Your task to perform on an android device: Open the phone app and click the voicemail tab. Image 0: 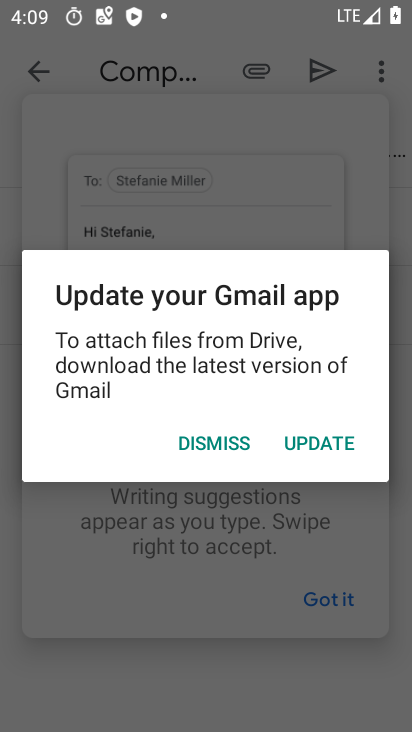
Step 0: press home button
Your task to perform on an android device: Open the phone app and click the voicemail tab. Image 1: 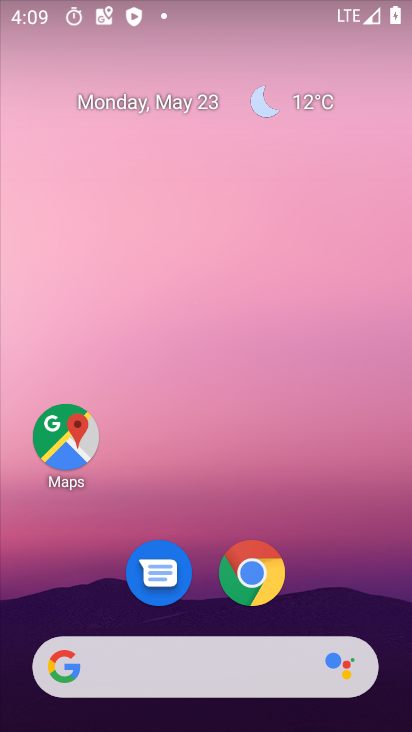
Step 1: drag from (39, 489) to (165, 236)
Your task to perform on an android device: Open the phone app and click the voicemail tab. Image 2: 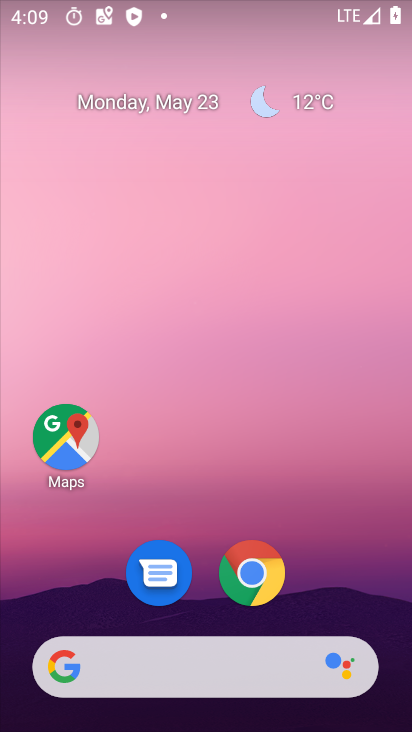
Step 2: drag from (98, 396) to (235, 167)
Your task to perform on an android device: Open the phone app and click the voicemail tab. Image 3: 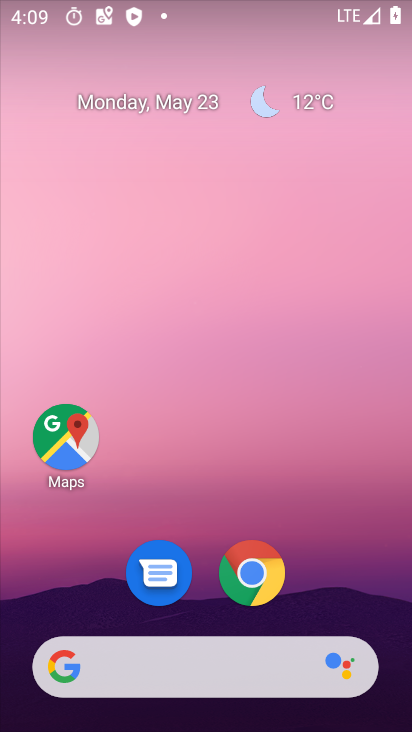
Step 3: drag from (71, 437) to (278, 107)
Your task to perform on an android device: Open the phone app and click the voicemail tab. Image 4: 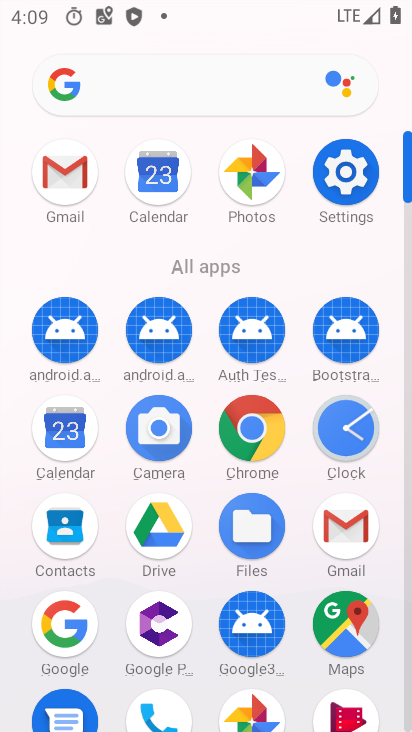
Step 4: click (140, 700)
Your task to perform on an android device: Open the phone app and click the voicemail tab. Image 5: 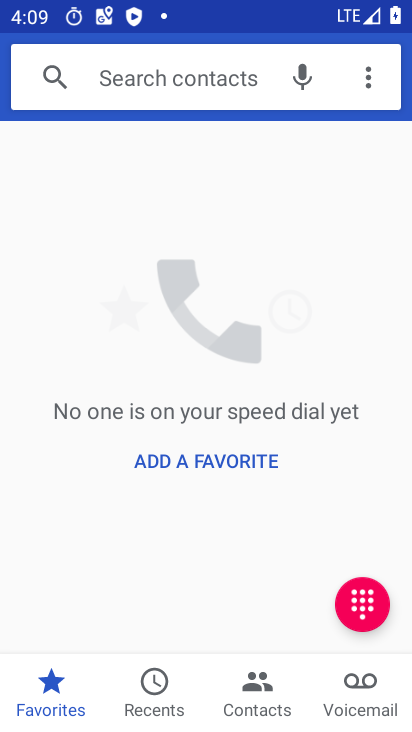
Step 5: click (360, 685)
Your task to perform on an android device: Open the phone app and click the voicemail tab. Image 6: 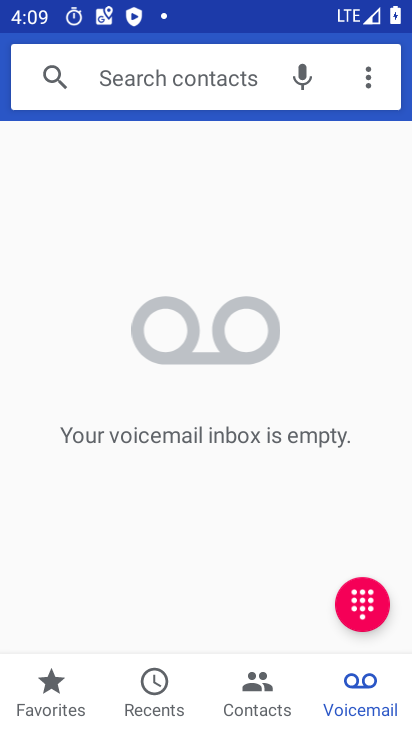
Step 6: task complete